Your task to perform on an android device: toggle notification dots Image 0: 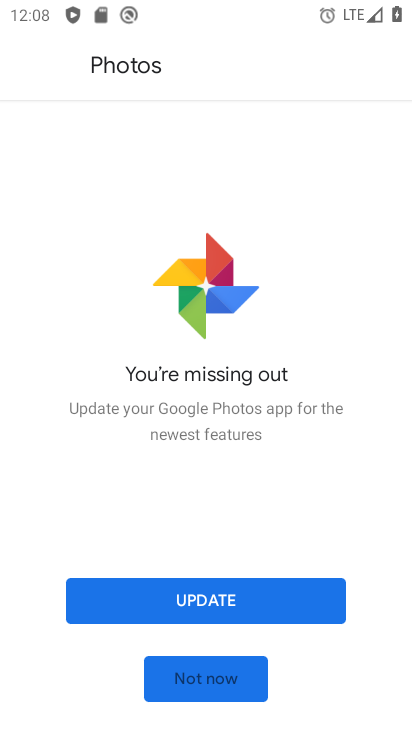
Step 0: press home button
Your task to perform on an android device: toggle notification dots Image 1: 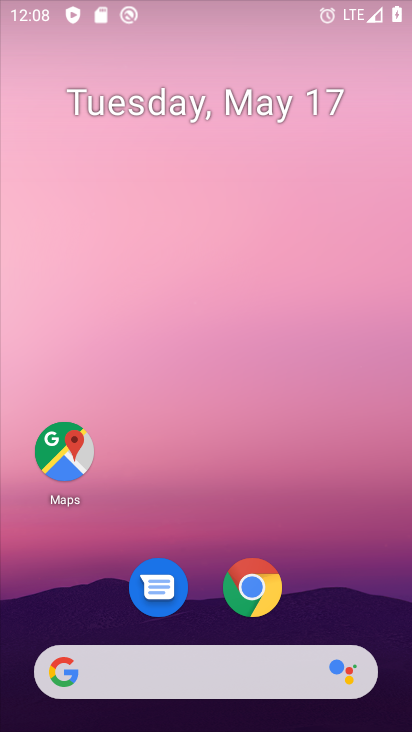
Step 1: drag from (392, 624) to (332, 118)
Your task to perform on an android device: toggle notification dots Image 2: 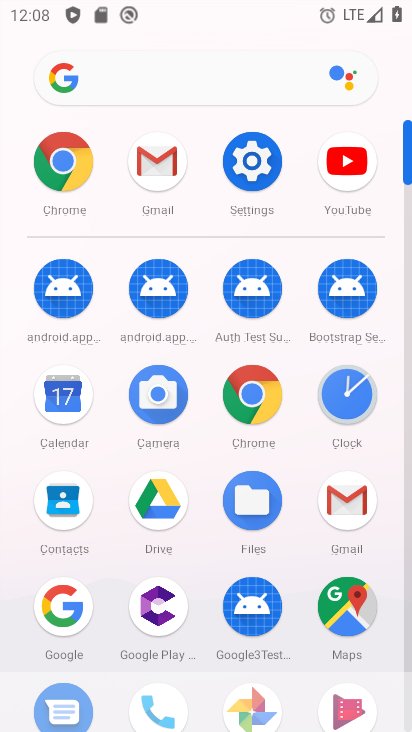
Step 2: click (243, 168)
Your task to perform on an android device: toggle notification dots Image 3: 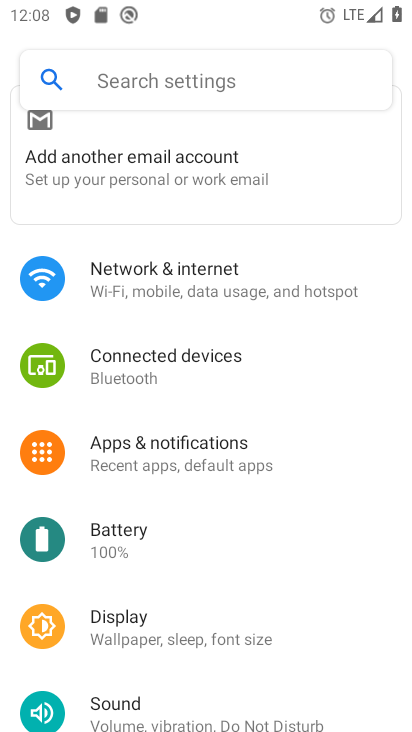
Step 3: click (201, 450)
Your task to perform on an android device: toggle notification dots Image 4: 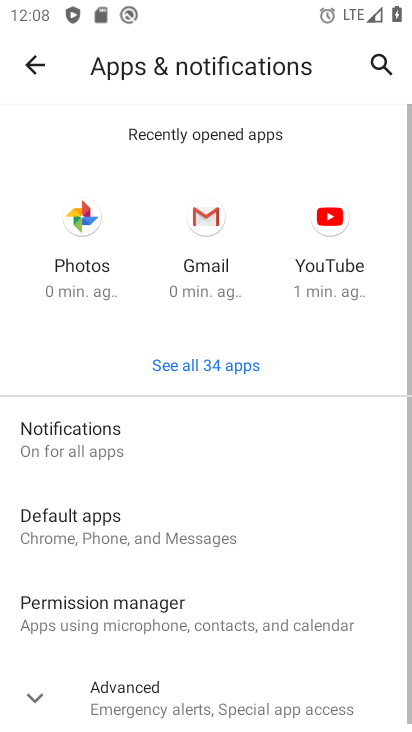
Step 4: click (151, 439)
Your task to perform on an android device: toggle notification dots Image 5: 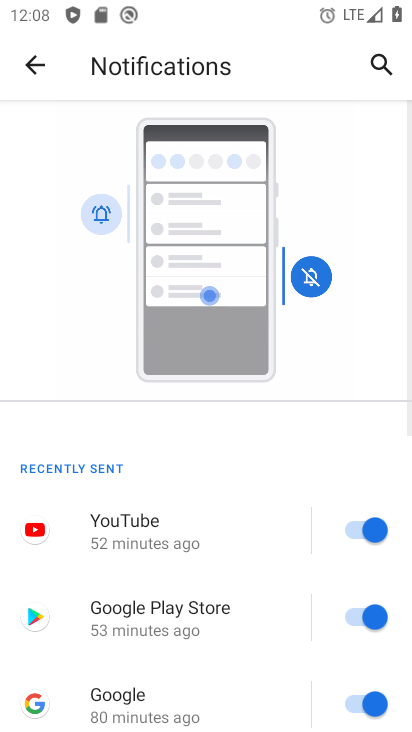
Step 5: drag from (180, 648) to (271, 59)
Your task to perform on an android device: toggle notification dots Image 6: 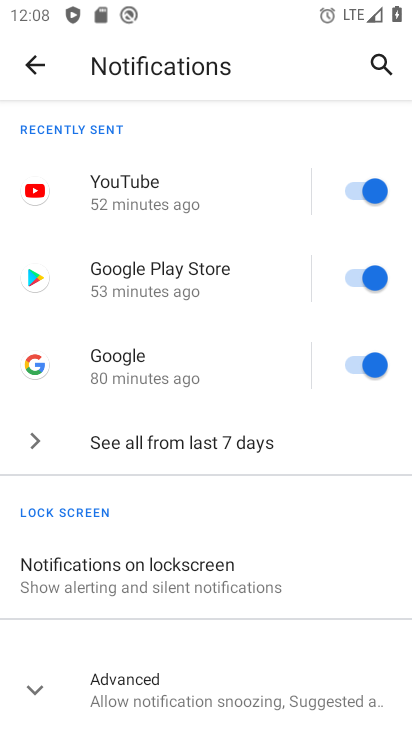
Step 6: click (120, 696)
Your task to perform on an android device: toggle notification dots Image 7: 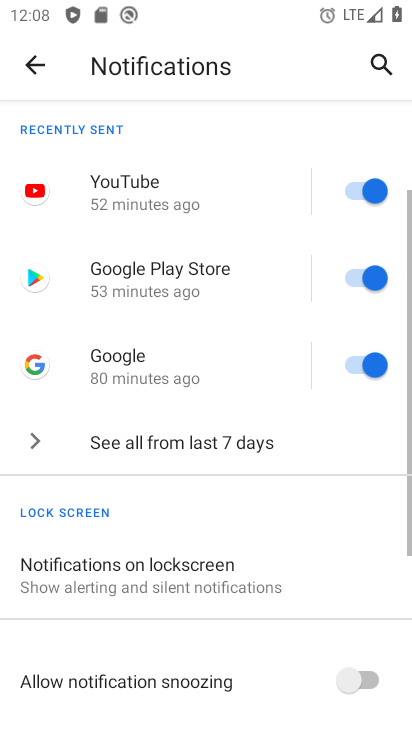
Step 7: drag from (142, 687) to (129, 186)
Your task to perform on an android device: toggle notification dots Image 8: 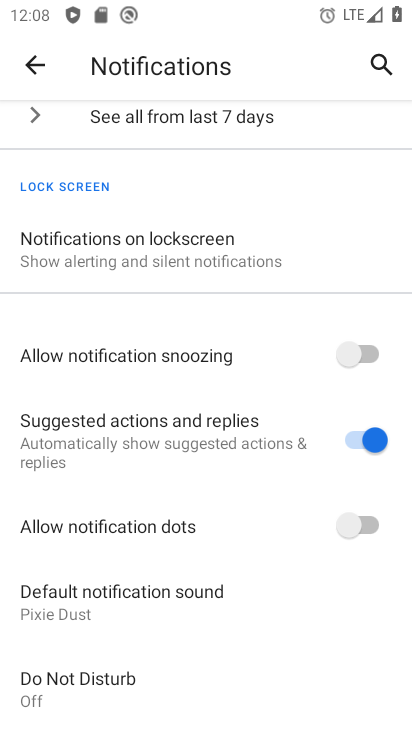
Step 8: click (232, 527)
Your task to perform on an android device: toggle notification dots Image 9: 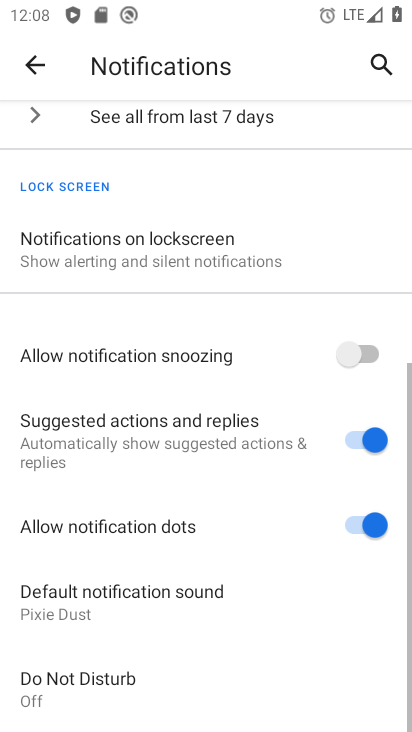
Step 9: task complete